Your task to perform on an android device: open chrome and create a bookmark for the current page Image 0: 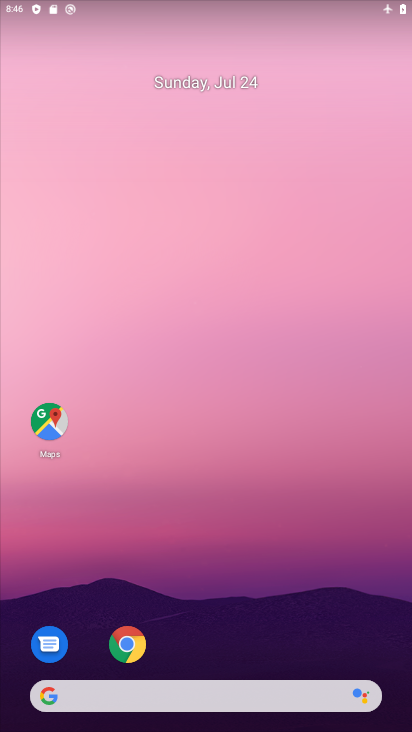
Step 0: drag from (293, 619) to (292, 149)
Your task to perform on an android device: open chrome and create a bookmark for the current page Image 1: 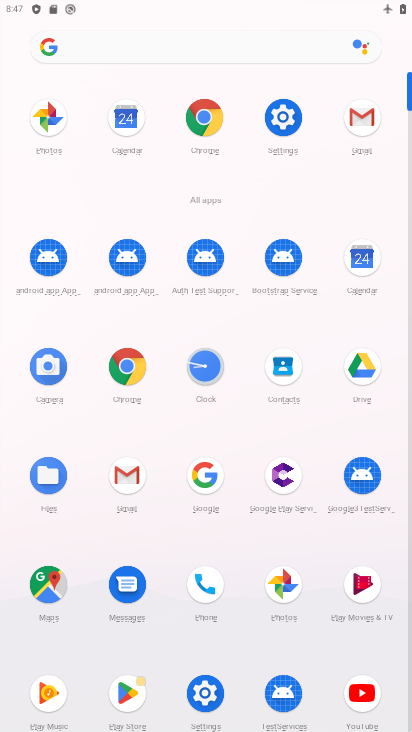
Step 1: click (127, 367)
Your task to perform on an android device: open chrome and create a bookmark for the current page Image 2: 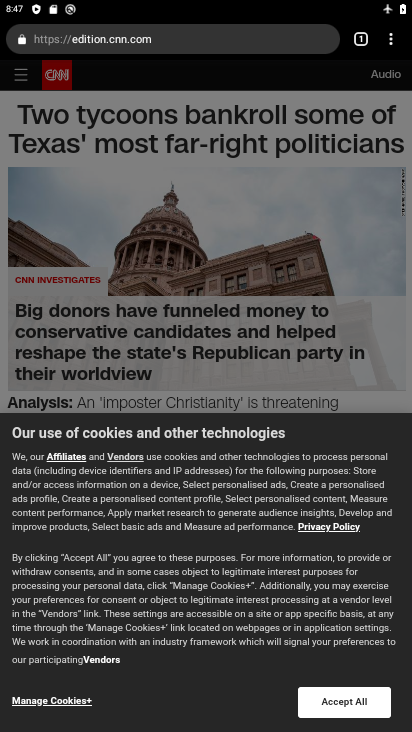
Step 2: task complete